Your task to perform on an android device: turn off airplane mode Image 0: 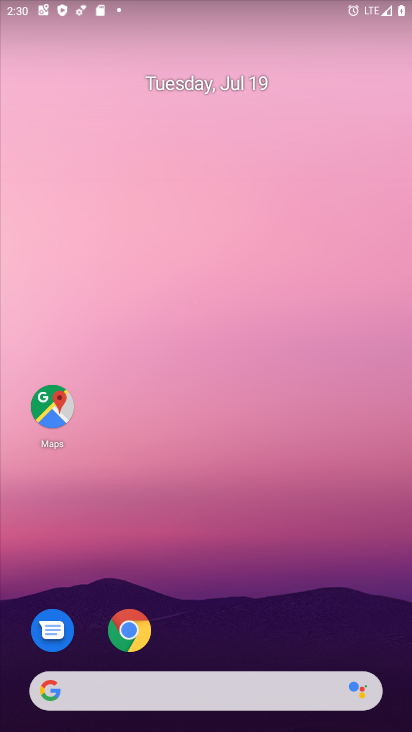
Step 0: drag from (251, 7) to (300, 508)
Your task to perform on an android device: turn off airplane mode Image 1: 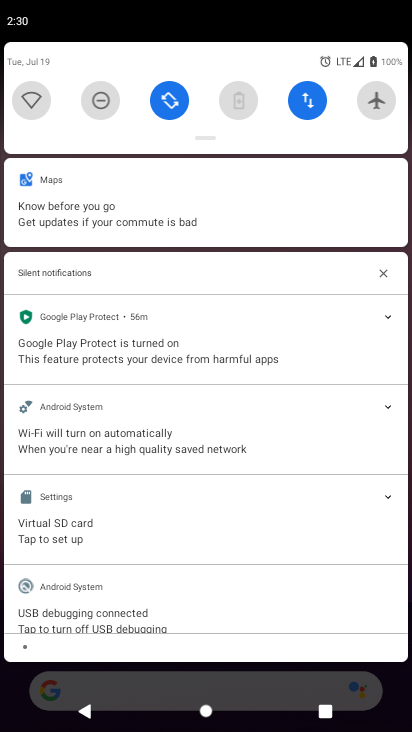
Step 1: task complete